Your task to perform on an android device: check android version Image 0: 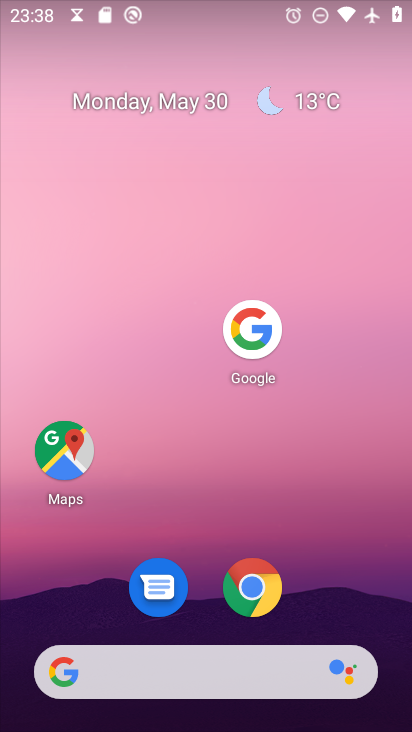
Step 0: press home button
Your task to perform on an android device: check android version Image 1: 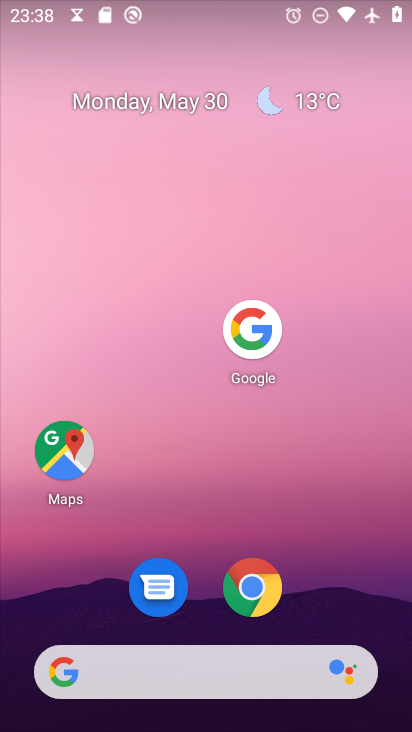
Step 1: drag from (143, 672) to (391, 142)
Your task to perform on an android device: check android version Image 2: 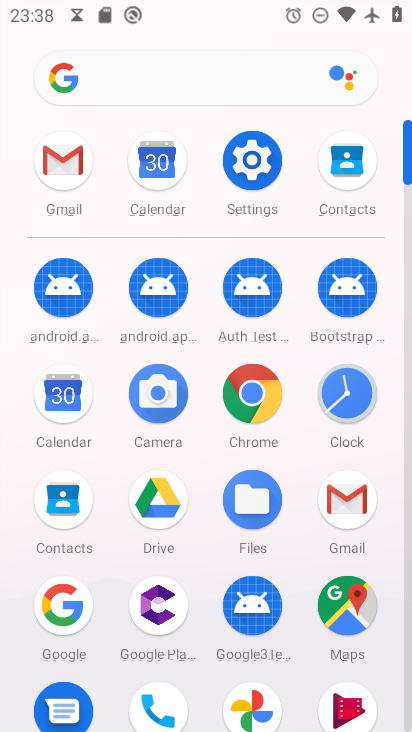
Step 2: click (262, 167)
Your task to perform on an android device: check android version Image 3: 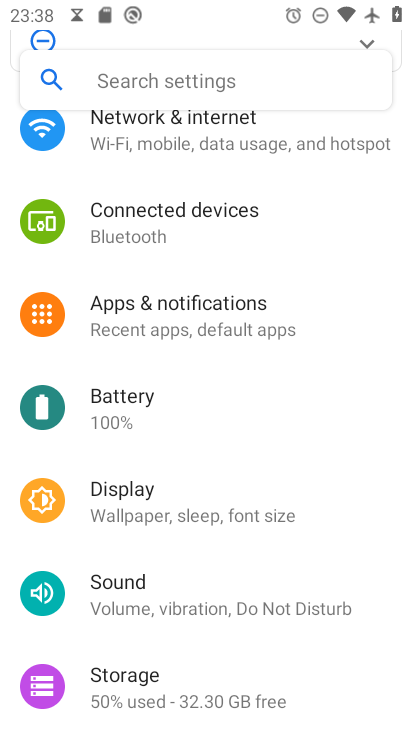
Step 3: drag from (293, 675) to (345, 75)
Your task to perform on an android device: check android version Image 4: 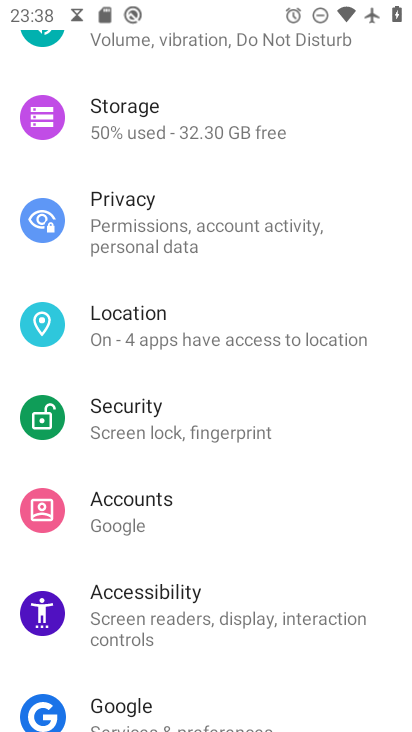
Step 4: drag from (242, 682) to (345, 154)
Your task to perform on an android device: check android version Image 5: 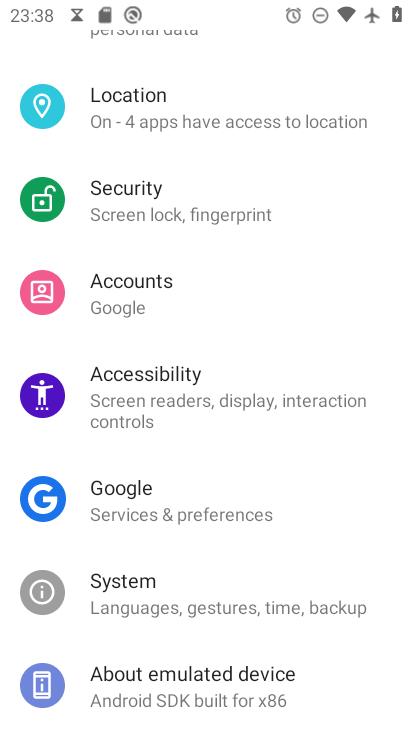
Step 5: click (201, 709)
Your task to perform on an android device: check android version Image 6: 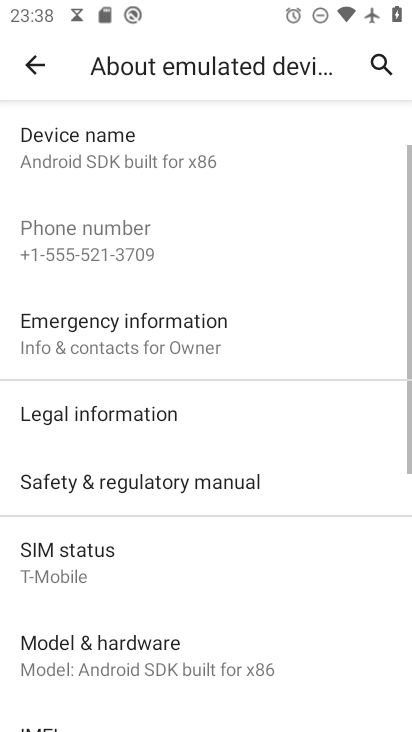
Step 6: drag from (248, 646) to (340, 262)
Your task to perform on an android device: check android version Image 7: 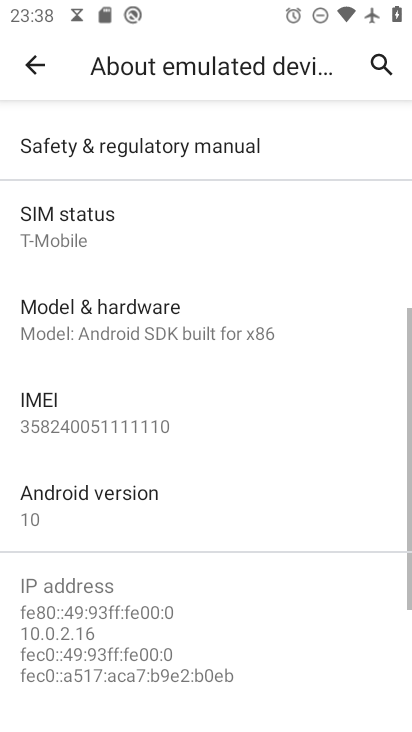
Step 7: click (132, 486)
Your task to perform on an android device: check android version Image 8: 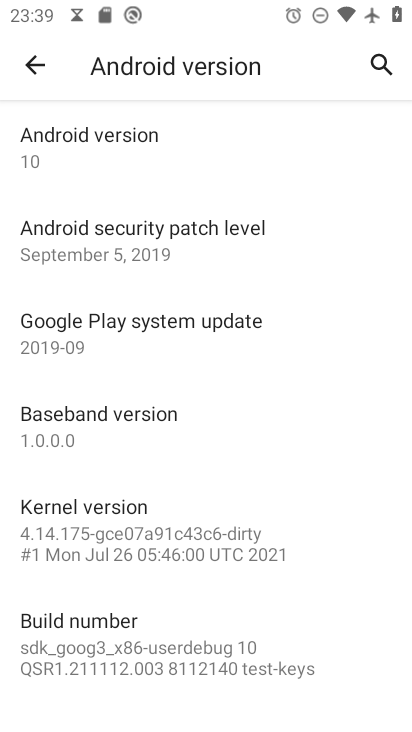
Step 8: task complete